Your task to perform on an android device: toggle data saver in the chrome app Image 0: 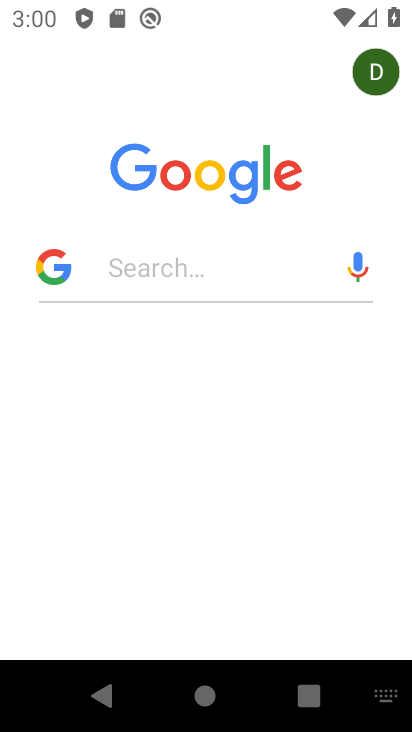
Step 0: press home button
Your task to perform on an android device: toggle data saver in the chrome app Image 1: 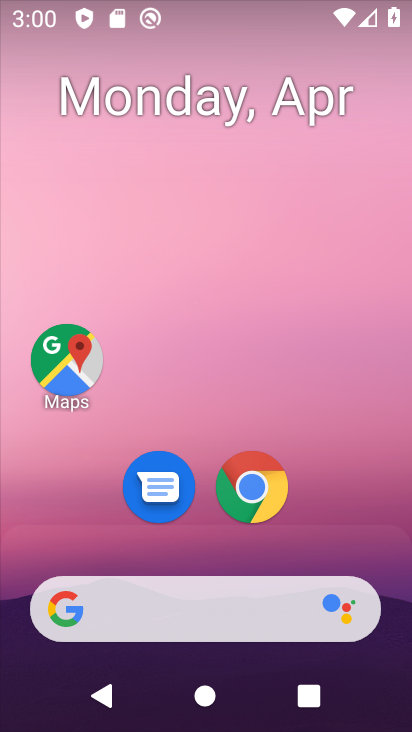
Step 1: click (264, 466)
Your task to perform on an android device: toggle data saver in the chrome app Image 2: 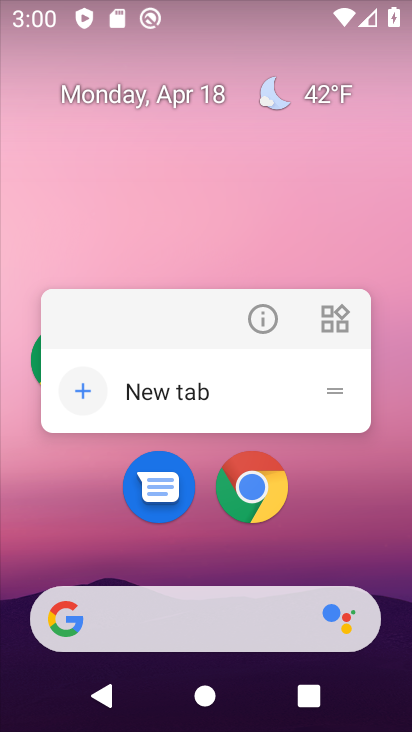
Step 2: click (252, 501)
Your task to perform on an android device: toggle data saver in the chrome app Image 3: 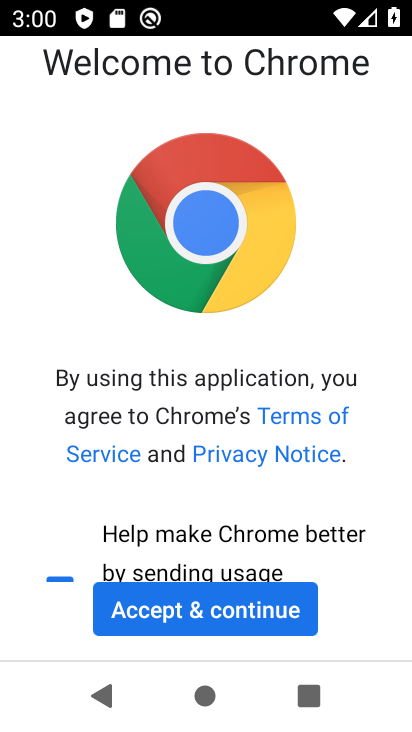
Step 3: click (253, 599)
Your task to perform on an android device: toggle data saver in the chrome app Image 4: 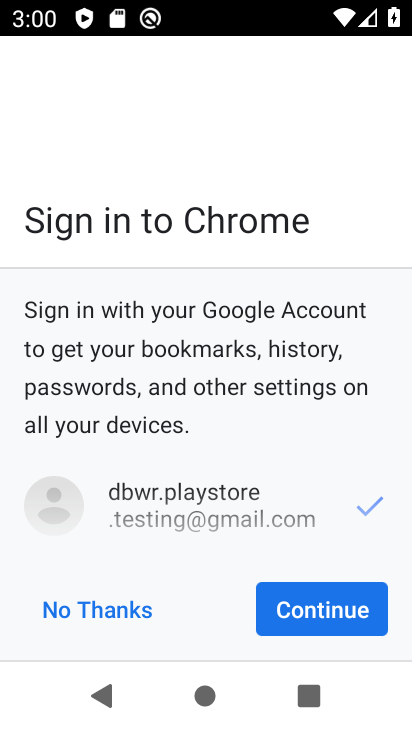
Step 4: click (310, 608)
Your task to perform on an android device: toggle data saver in the chrome app Image 5: 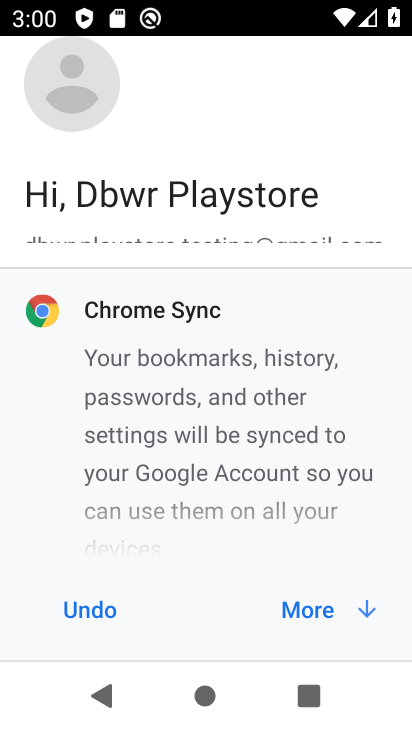
Step 5: click (308, 590)
Your task to perform on an android device: toggle data saver in the chrome app Image 6: 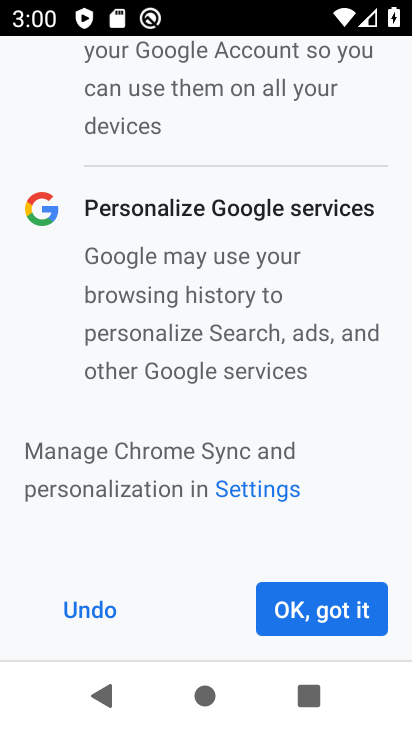
Step 6: click (301, 588)
Your task to perform on an android device: toggle data saver in the chrome app Image 7: 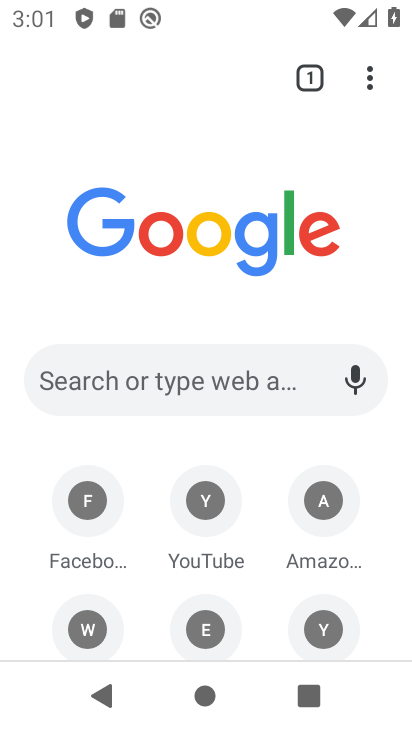
Step 7: click (372, 70)
Your task to perform on an android device: toggle data saver in the chrome app Image 8: 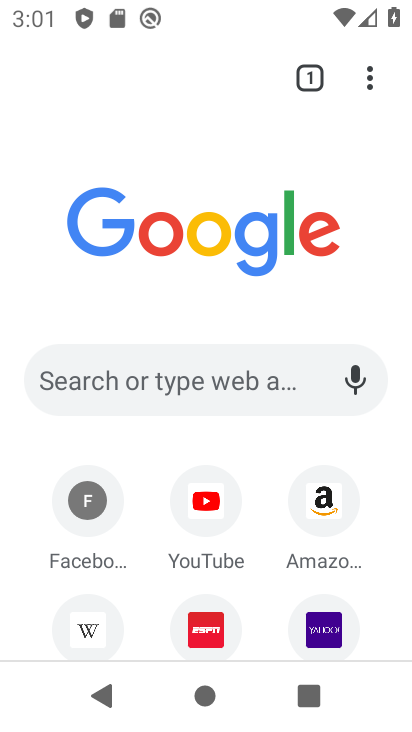
Step 8: click (370, 86)
Your task to perform on an android device: toggle data saver in the chrome app Image 9: 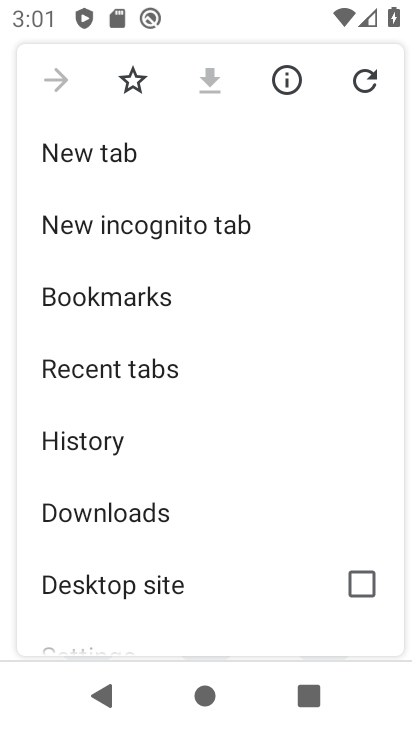
Step 9: drag from (227, 535) to (210, 166)
Your task to perform on an android device: toggle data saver in the chrome app Image 10: 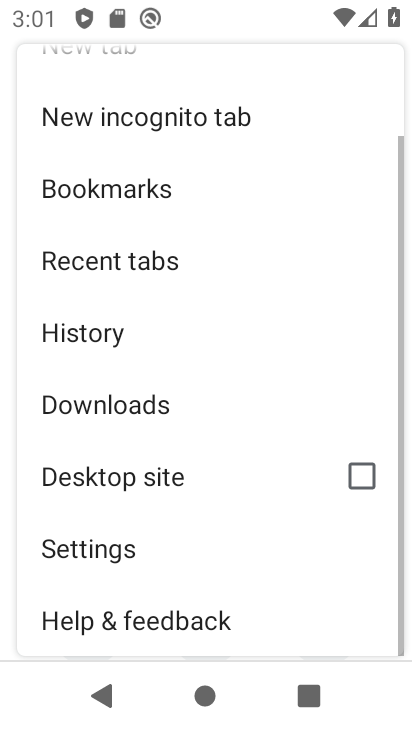
Step 10: click (200, 543)
Your task to perform on an android device: toggle data saver in the chrome app Image 11: 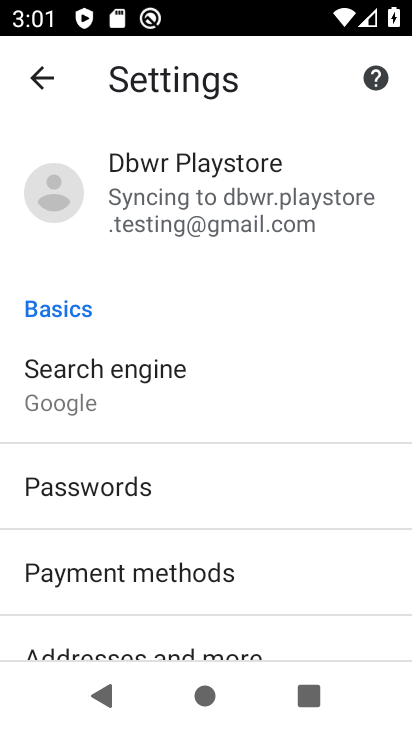
Step 11: drag from (218, 529) to (170, 240)
Your task to perform on an android device: toggle data saver in the chrome app Image 12: 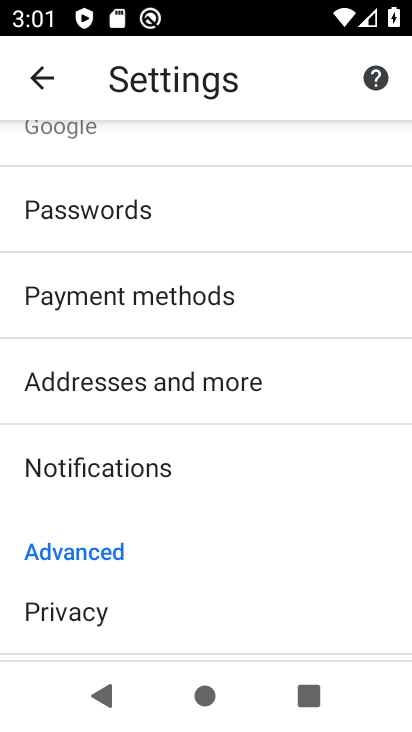
Step 12: drag from (187, 600) to (189, 328)
Your task to perform on an android device: toggle data saver in the chrome app Image 13: 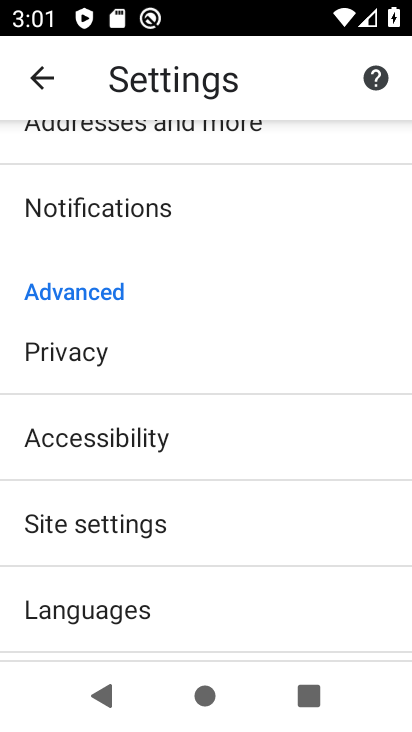
Step 13: drag from (184, 582) to (225, 267)
Your task to perform on an android device: toggle data saver in the chrome app Image 14: 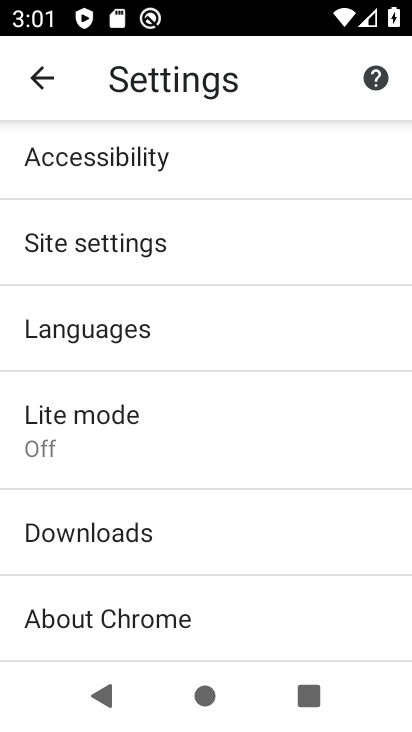
Step 14: click (179, 431)
Your task to perform on an android device: toggle data saver in the chrome app Image 15: 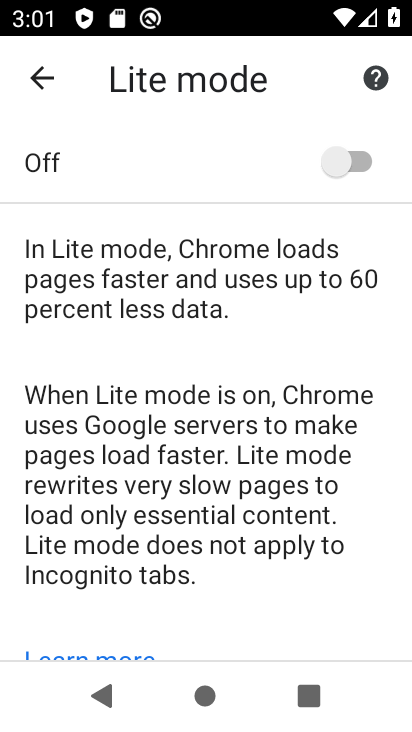
Step 15: click (347, 151)
Your task to perform on an android device: toggle data saver in the chrome app Image 16: 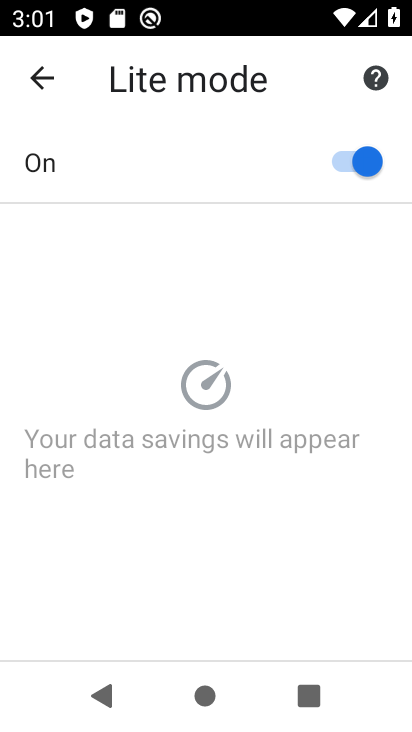
Step 16: task complete